Your task to perform on an android device: change the clock display to digital Image 0: 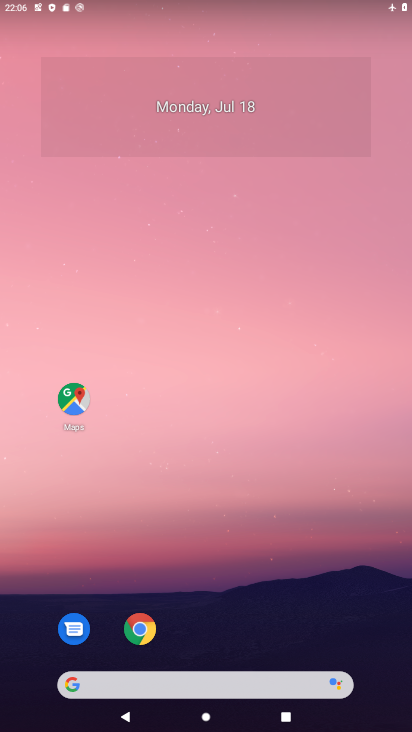
Step 0: drag from (336, 589) to (292, 198)
Your task to perform on an android device: change the clock display to digital Image 1: 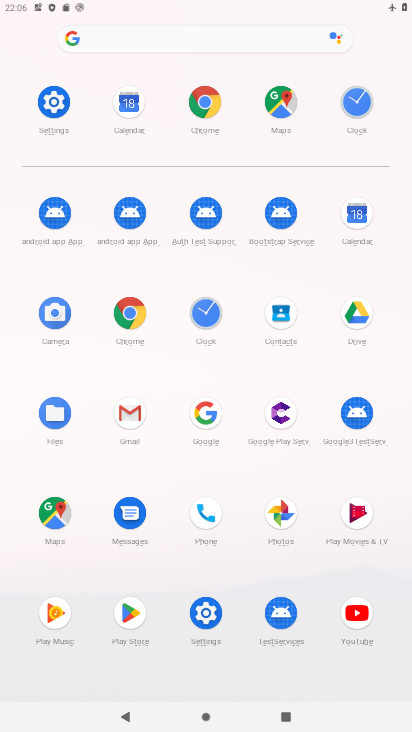
Step 1: click (208, 311)
Your task to perform on an android device: change the clock display to digital Image 2: 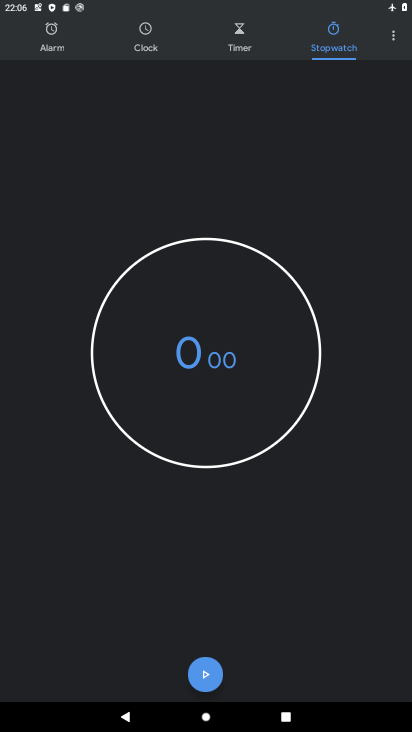
Step 2: click (401, 37)
Your task to perform on an android device: change the clock display to digital Image 3: 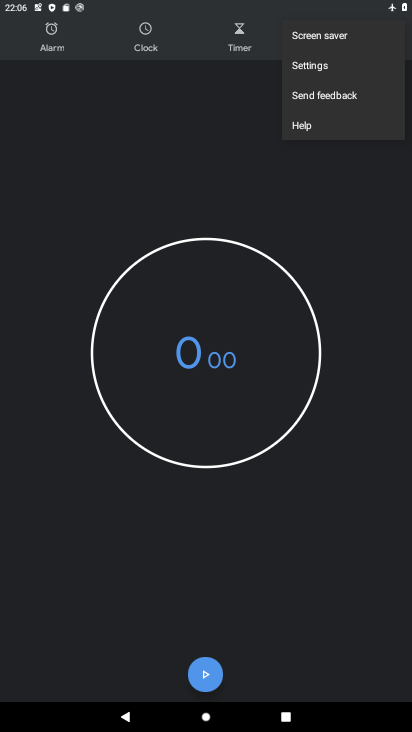
Step 3: click (331, 65)
Your task to perform on an android device: change the clock display to digital Image 4: 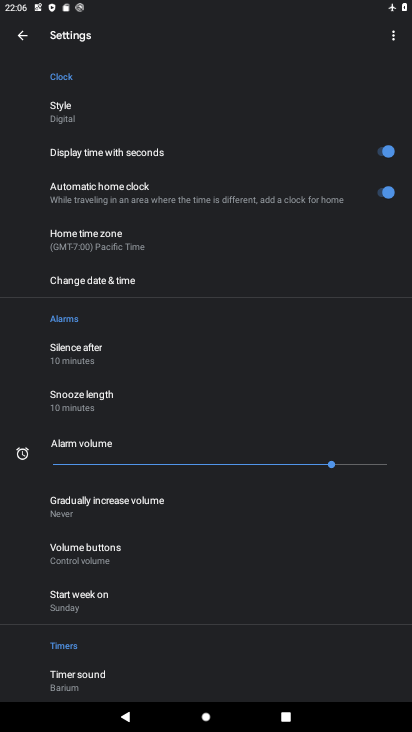
Step 4: task complete